Your task to perform on an android device: clear history in the chrome app Image 0: 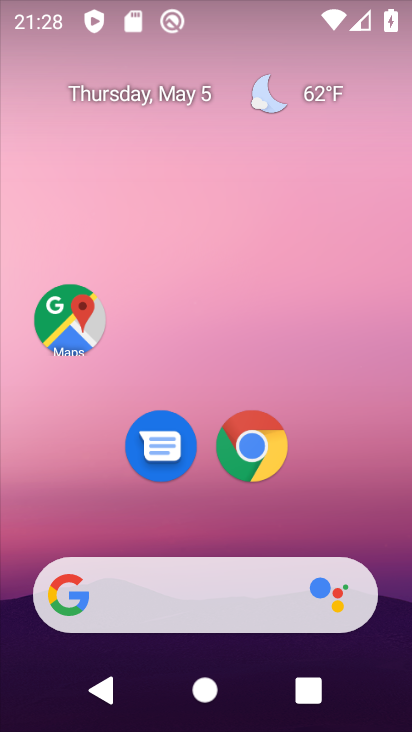
Step 0: drag from (209, 644) to (170, 262)
Your task to perform on an android device: clear history in the chrome app Image 1: 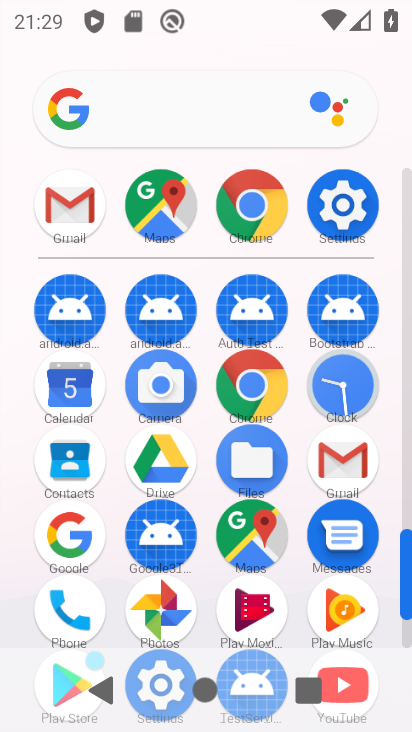
Step 1: click (264, 195)
Your task to perform on an android device: clear history in the chrome app Image 2: 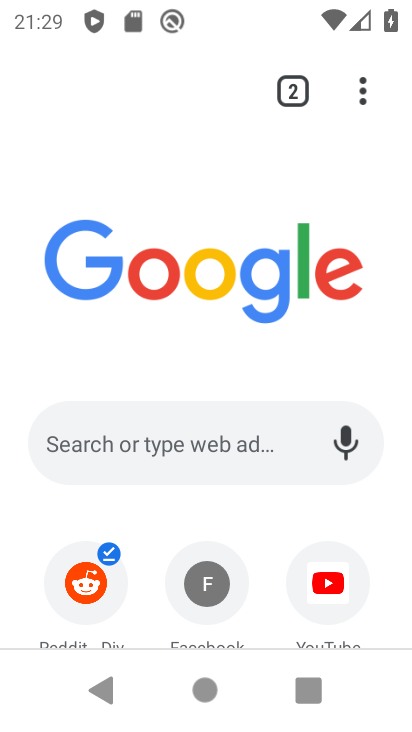
Step 2: click (366, 101)
Your task to perform on an android device: clear history in the chrome app Image 3: 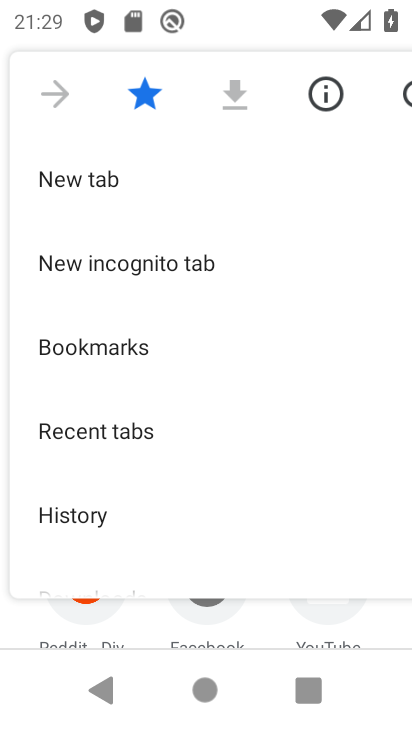
Step 3: click (60, 508)
Your task to perform on an android device: clear history in the chrome app Image 4: 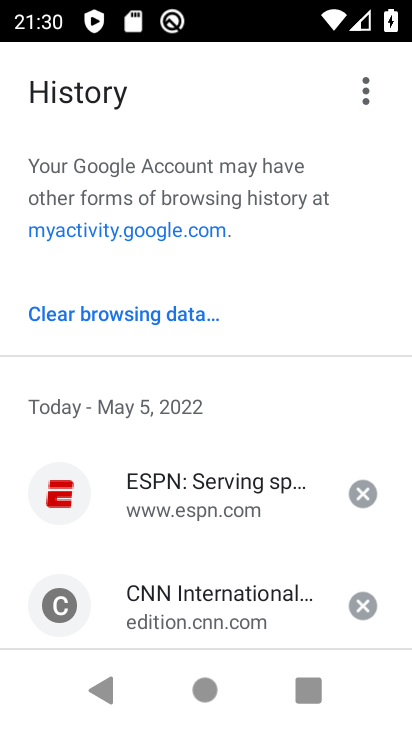
Step 4: click (101, 304)
Your task to perform on an android device: clear history in the chrome app Image 5: 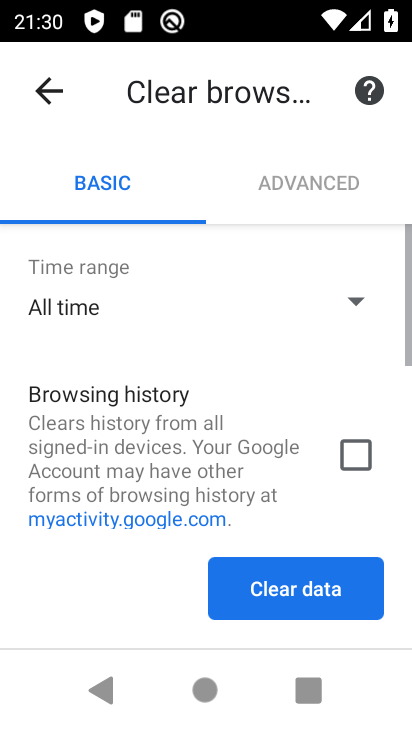
Step 5: click (362, 449)
Your task to perform on an android device: clear history in the chrome app Image 6: 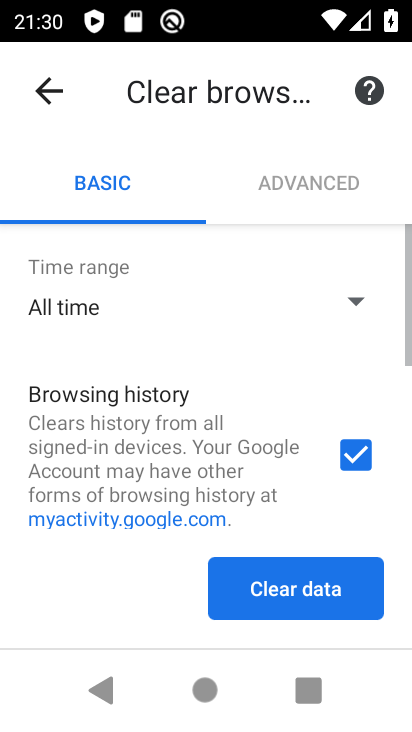
Step 6: click (305, 588)
Your task to perform on an android device: clear history in the chrome app Image 7: 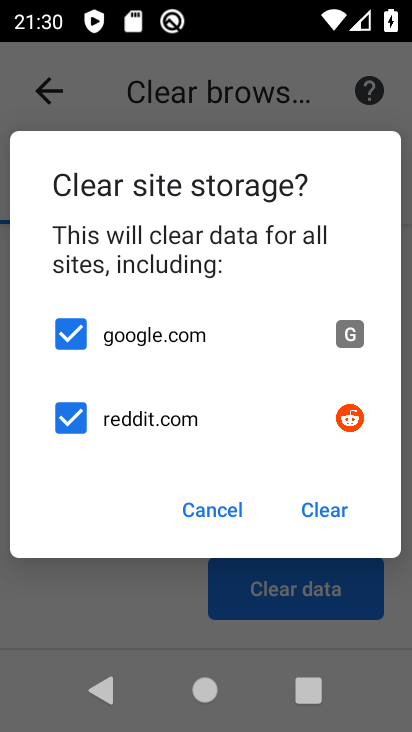
Step 7: task complete